Your task to perform on an android device: Search for pizza restaurants on Maps Image 0: 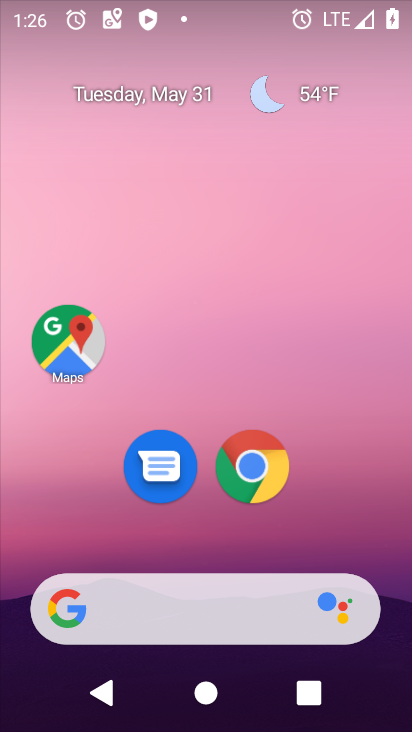
Step 0: click (80, 341)
Your task to perform on an android device: Search for pizza restaurants on Maps Image 1: 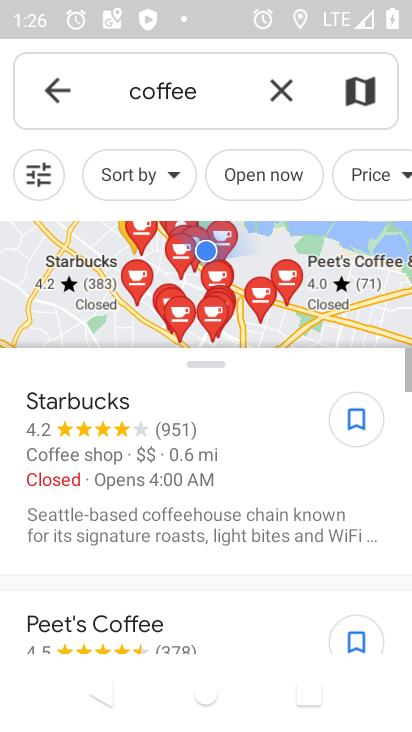
Step 1: click (284, 77)
Your task to perform on an android device: Search for pizza restaurants on Maps Image 2: 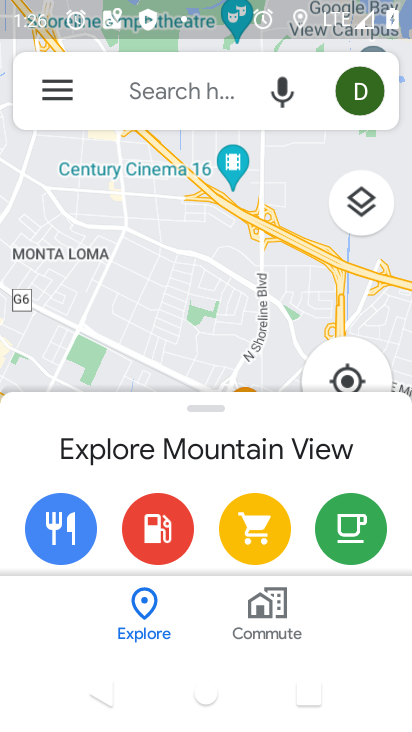
Step 2: click (178, 85)
Your task to perform on an android device: Search for pizza restaurants on Maps Image 3: 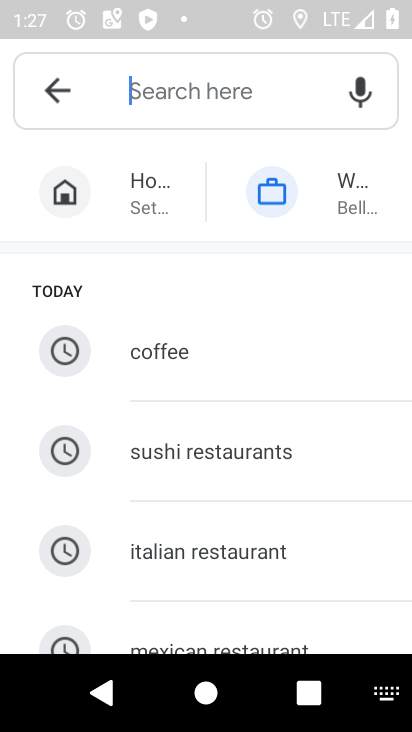
Step 3: drag from (196, 578) to (189, 134)
Your task to perform on an android device: Search for pizza restaurants on Maps Image 4: 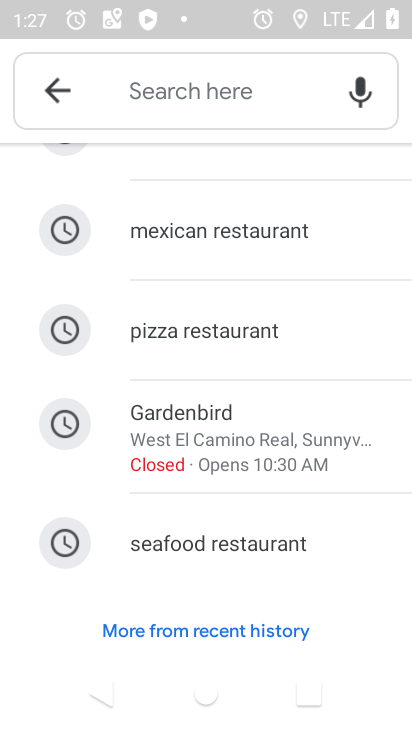
Step 4: click (230, 344)
Your task to perform on an android device: Search for pizza restaurants on Maps Image 5: 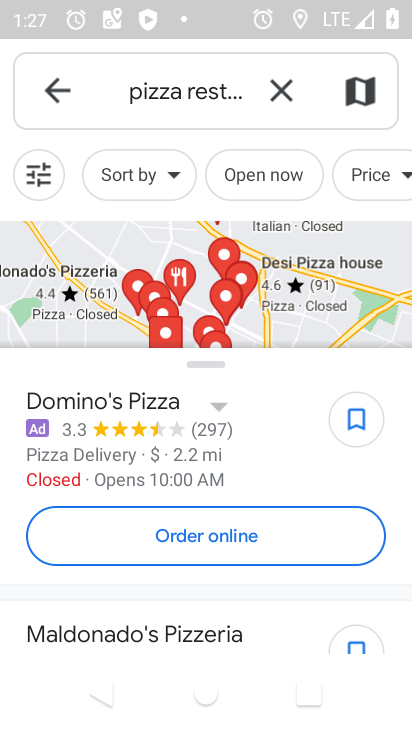
Step 5: task complete